Your task to perform on an android device: clear all cookies in the chrome app Image 0: 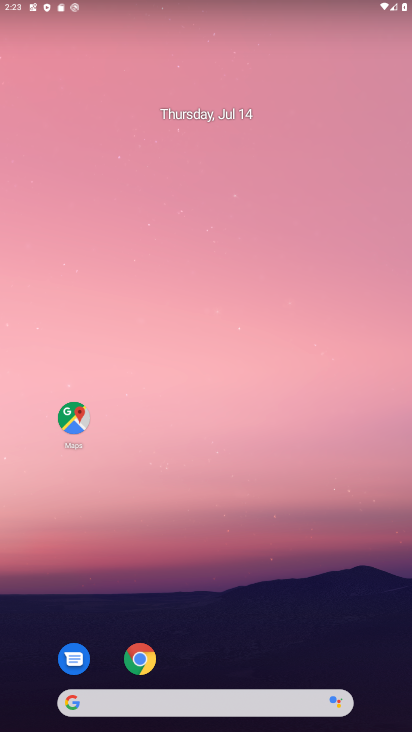
Step 0: press home button
Your task to perform on an android device: clear all cookies in the chrome app Image 1: 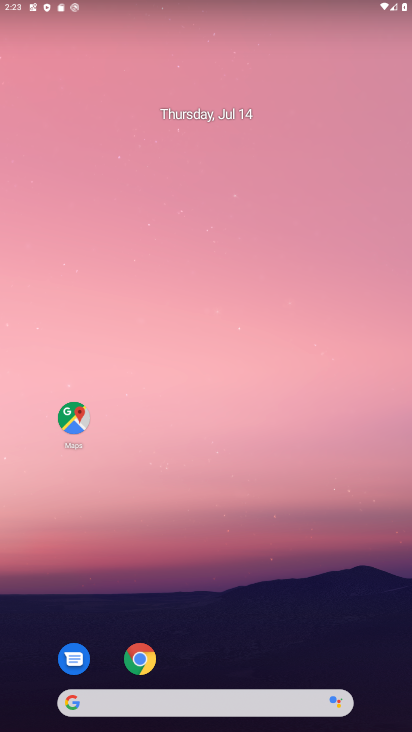
Step 1: drag from (209, 658) to (301, 28)
Your task to perform on an android device: clear all cookies in the chrome app Image 2: 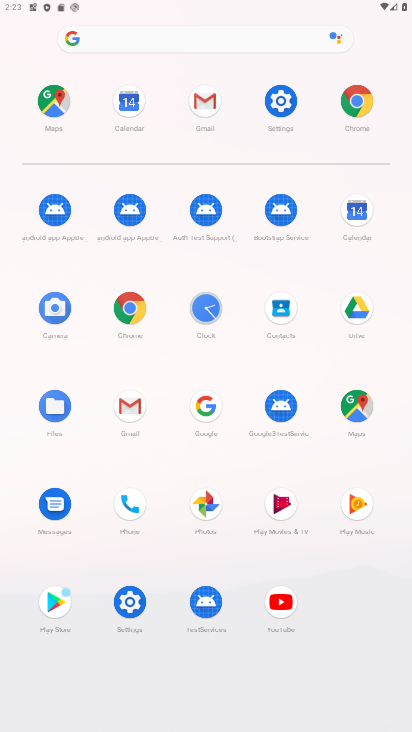
Step 2: click (357, 101)
Your task to perform on an android device: clear all cookies in the chrome app Image 3: 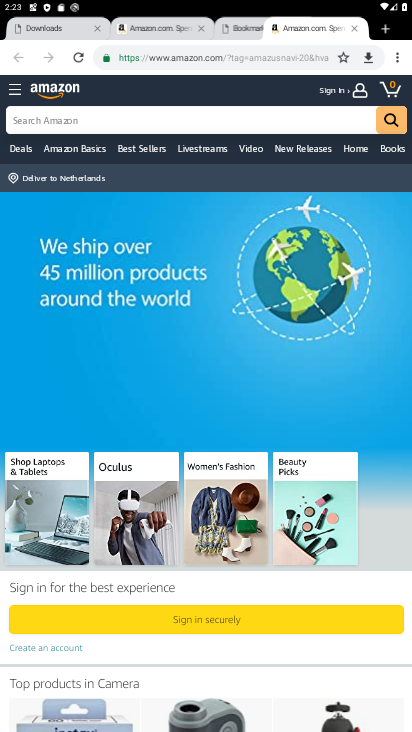
Step 3: drag from (399, 51) to (260, 385)
Your task to perform on an android device: clear all cookies in the chrome app Image 4: 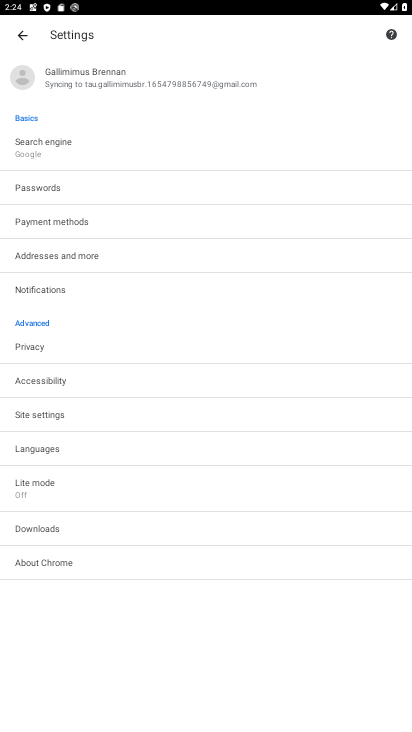
Step 4: click (36, 346)
Your task to perform on an android device: clear all cookies in the chrome app Image 5: 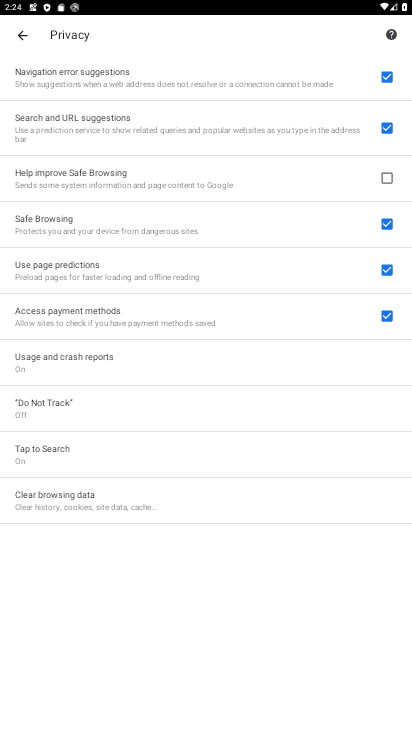
Step 5: click (61, 495)
Your task to perform on an android device: clear all cookies in the chrome app Image 6: 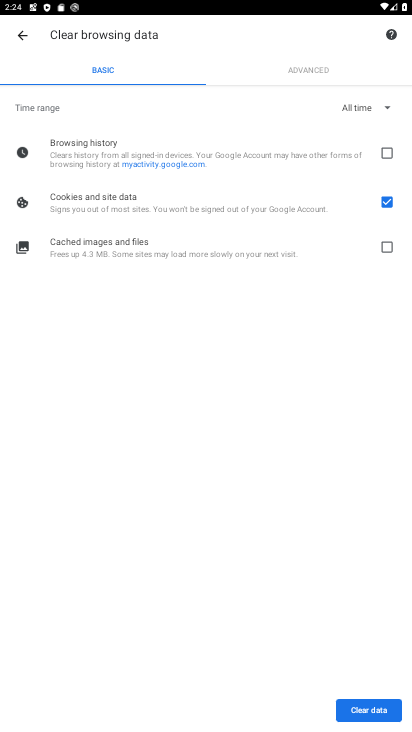
Step 6: click (370, 710)
Your task to perform on an android device: clear all cookies in the chrome app Image 7: 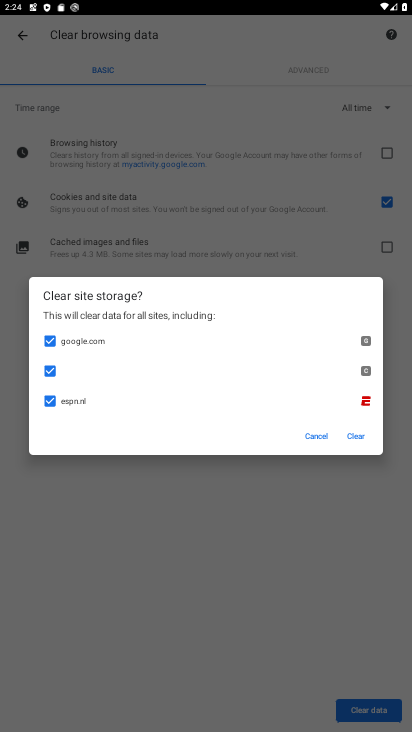
Step 7: click (361, 434)
Your task to perform on an android device: clear all cookies in the chrome app Image 8: 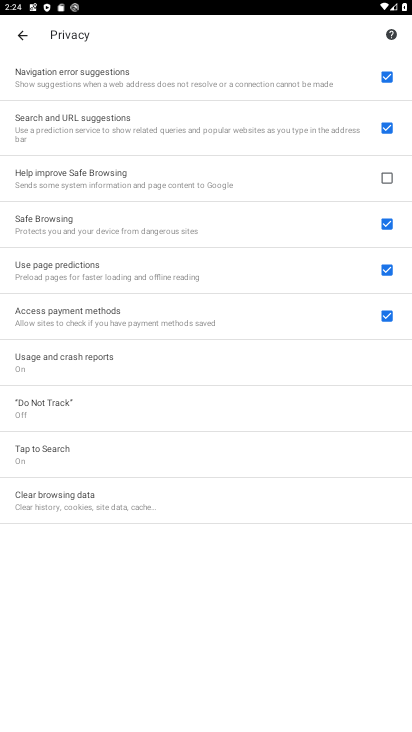
Step 8: task complete